Your task to perform on an android device: Go to Google Image 0: 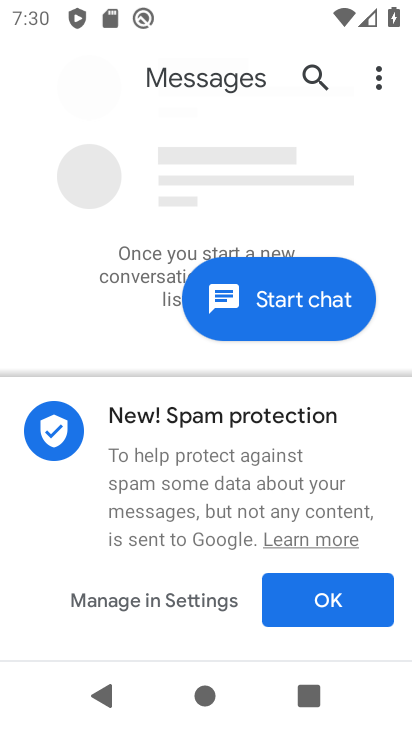
Step 0: press home button
Your task to perform on an android device: Go to Google Image 1: 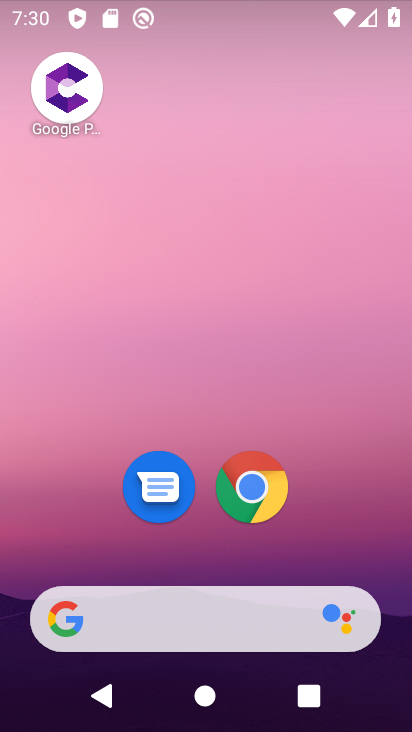
Step 1: drag from (352, 545) to (282, 183)
Your task to perform on an android device: Go to Google Image 2: 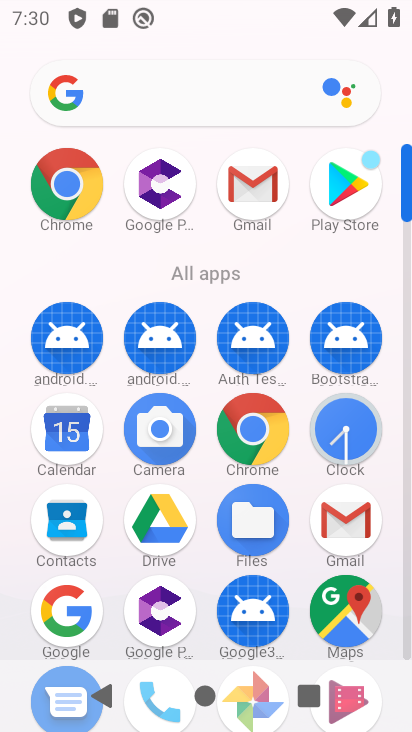
Step 2: click (50, 613)
Your task to perform on an android device: Go to Google Image 3: 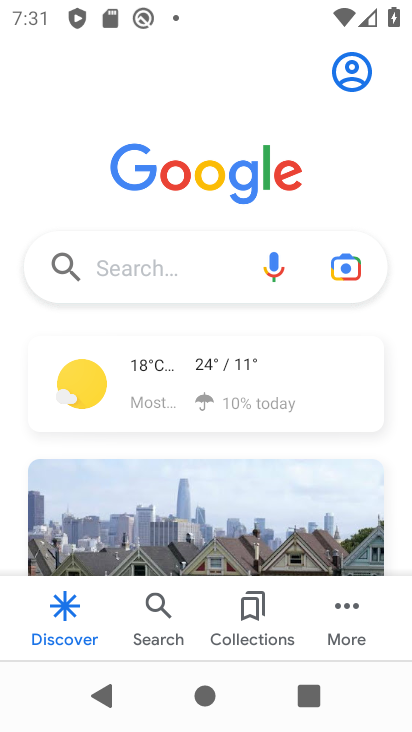
Step 3: task complete